Your task to perform on an android device: check out phone information Image 0: 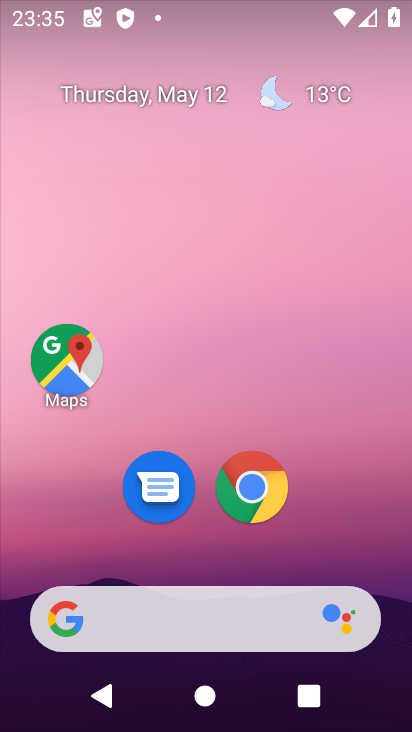
Step 0: drag from (190, 536) to (214, 185)
Your task to perform on an android device: check out phone information Image 1: 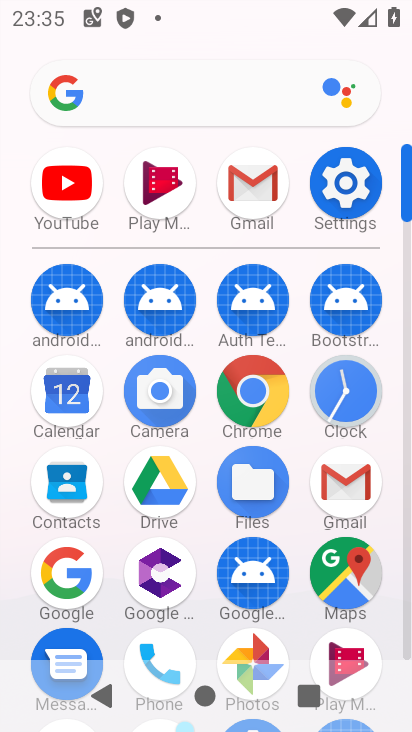
Step 1: click (345, 180)
Your task to perform on an android device: check out phone information Image 2: 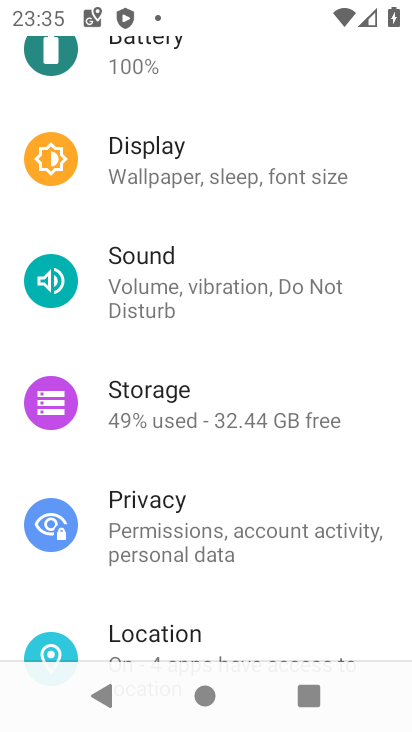
Step 2: drag from (134, 567) to (207, 25)
Your task to perform on an android device: check out phone information Image 3: 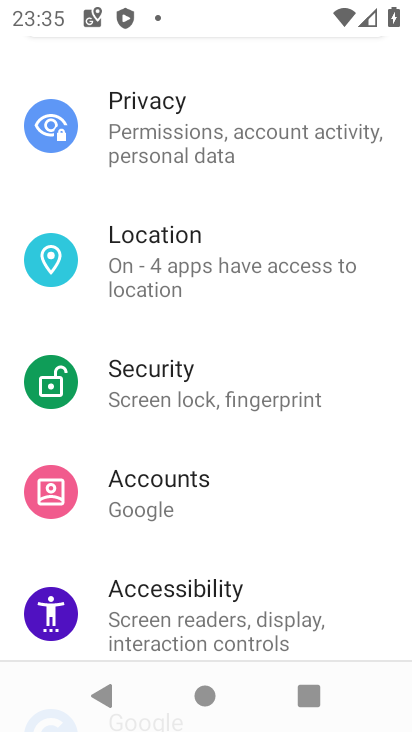
Step 3: drag from (133, 527) to (135, 187)
Your task to perform on an android device: check out phone information Image 4: 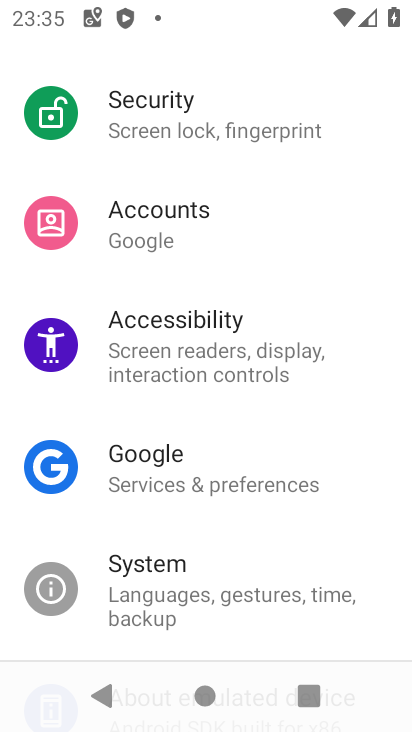
Step 4: drag from (137, 608) to (159, 236)
Your task to perform on an android device: check out phone information Image 5: 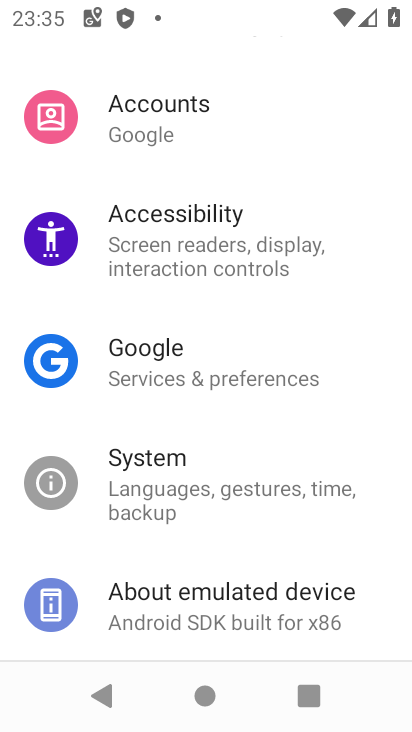
Step 5: drag from (200, 568) to (206, 296)
Your task to perform on an android device: check out phone information Image 6: 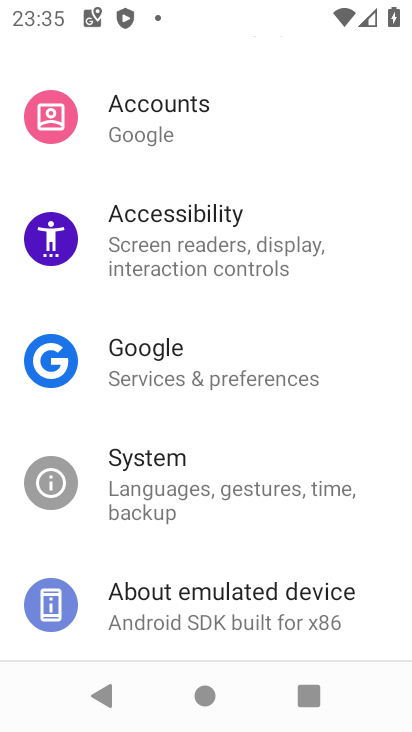
Step 6: click (167, 564)
Your task to perform on an android device: check out phone information Image 7: 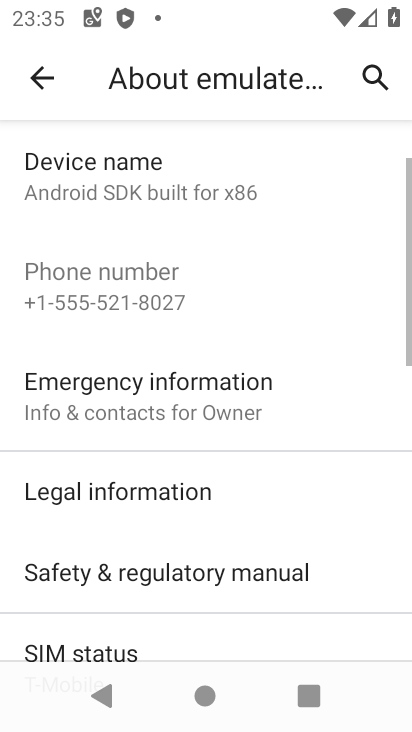
Step 7: task complete